Your task to perform on an android device: Open settings on Google Maps Image 0: 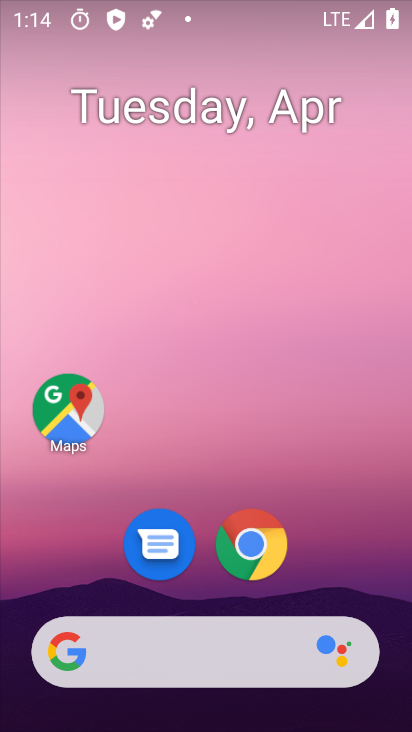
Step 0: click (72, 408)
Your task to perform on an android device: Open settings on Google Maps Image 1: 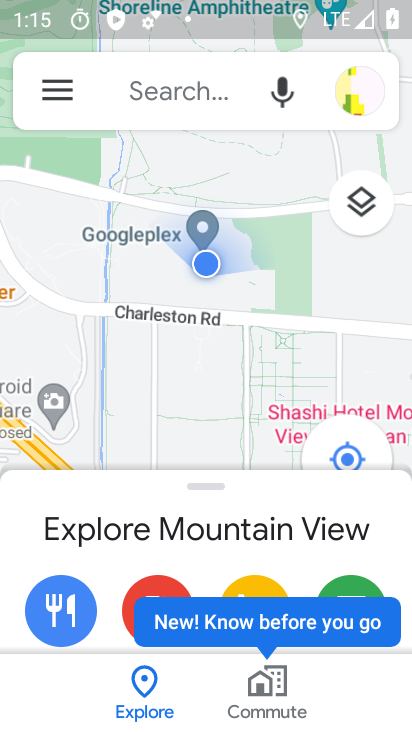
Step 1: click (57, 92)
Your task to perform on an android device: Open settings on Google Maps Image 2: 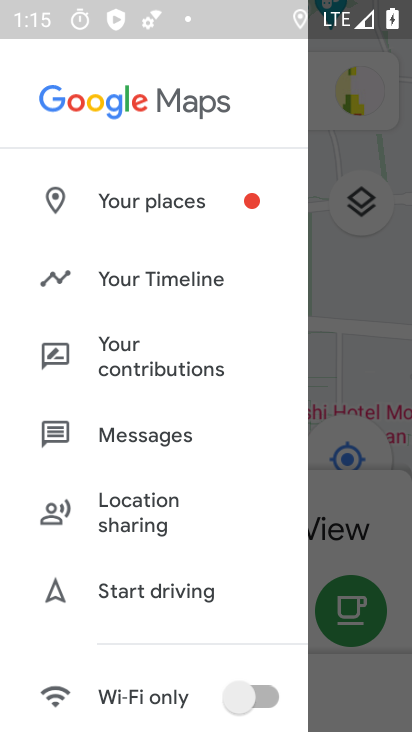
Step 2: drag from (205, 584) to (204, 521)
Your task to perform on an android device: Open settings on Google Maps Image 3: 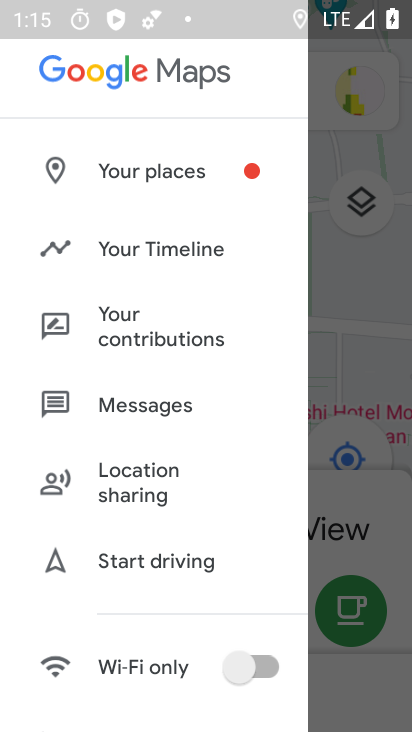
Step 3: drag from (172, 547) to (148, 191)
Your task to perform on an android device: Open settings on Google Maps Image 4: 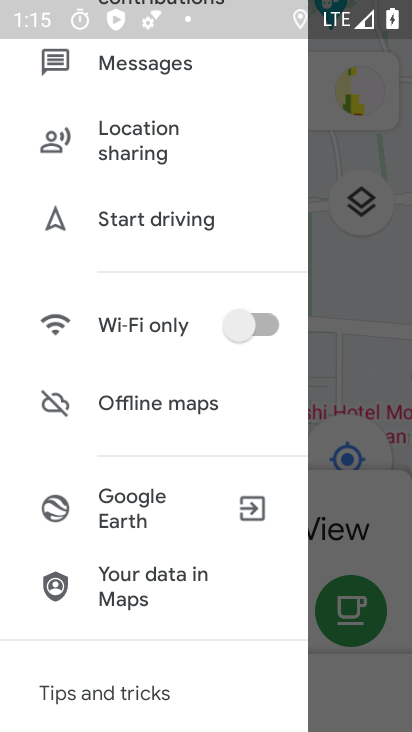
Step 4: drag from (157, 604) to (155, 264)
Your task to perform on an android device: Open settings on Google Maps Image 5: 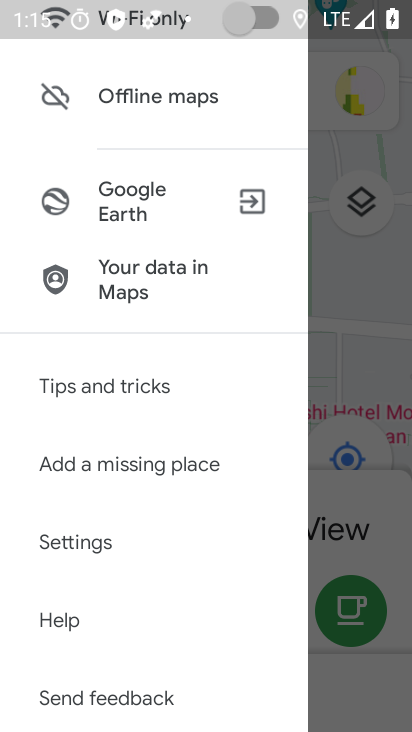
Step 5: click (100, 543)
Your task to perform on an android device: Open settings on Google Maps Image 6: 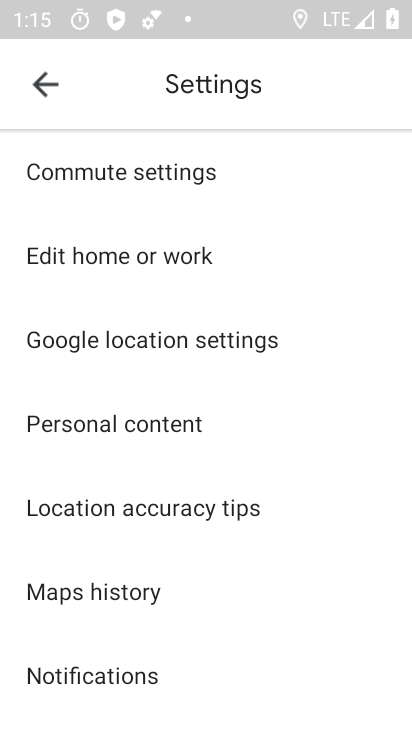
Step 6: task complete